Your task to perform on an android device: Open my contact list Image 0: 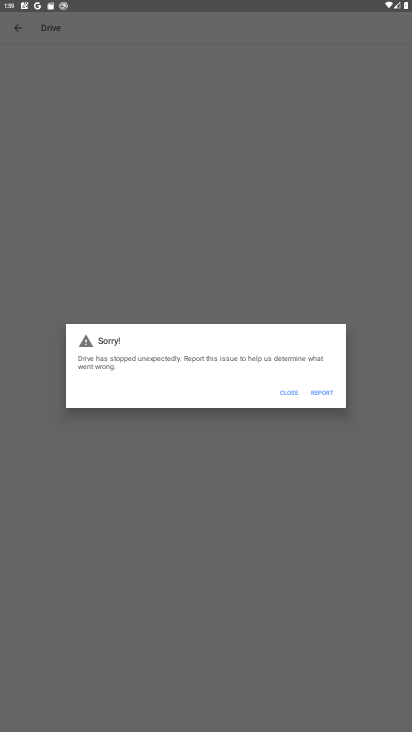
Step 0: press home button
Your task to perform on an android device: Open my contact list Image 1: 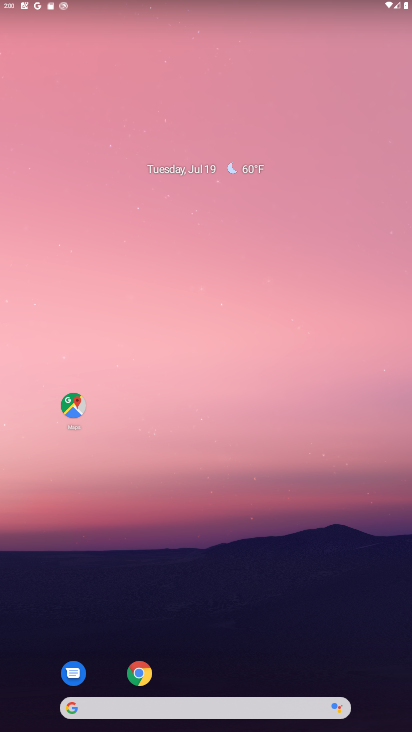
Step 1: drag from (211, 579) to (296, 52)
Your task to perform on an android device: Open my contact list Image 2: 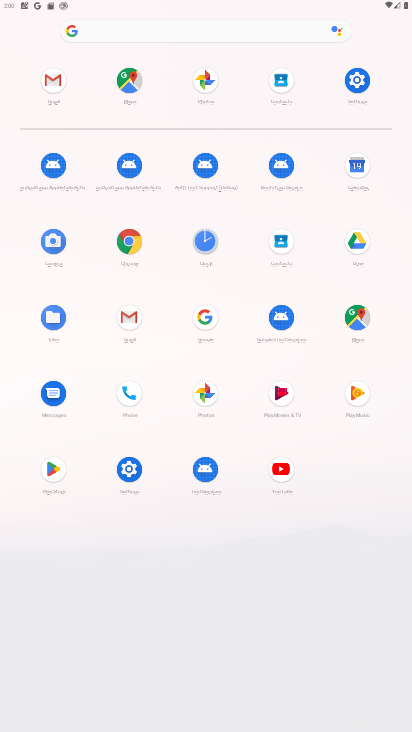
Step 2: click (286, 237)
Your task to perform on an android device: Open my contact list Image 3: 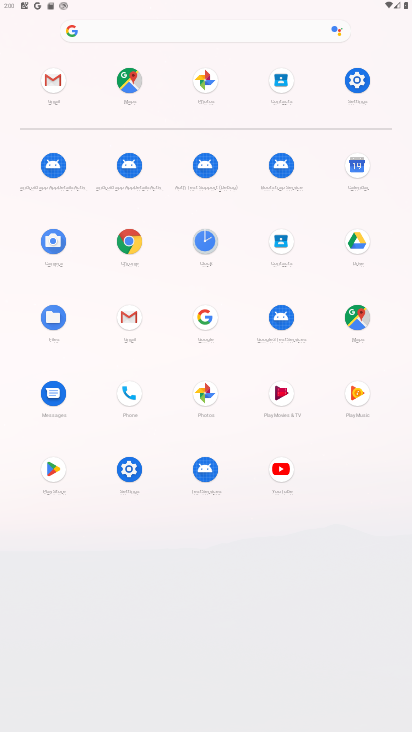
Step 3: click (286, 237)
Your task to perform on an android device: Open my contact list Image 4: 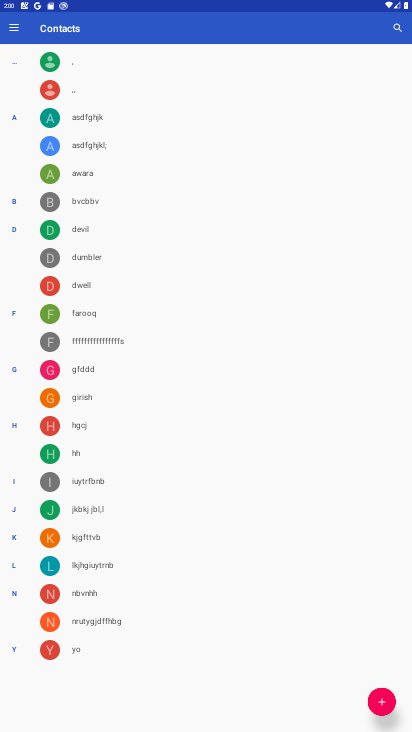
Step 4: task complete